Your task to perform on an android device: turn off notifications settings in the gmail app Image 0: 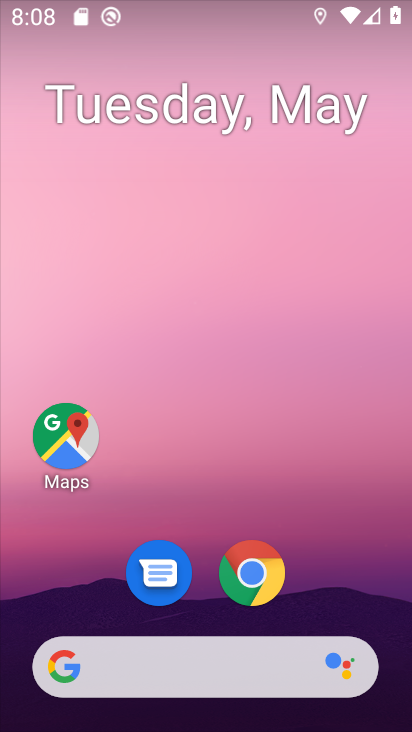
Step 0: drag from (369, 490) to (350, 243)
Your task to perform on an android device: turn off notifications settings in the gmail app Image 1: 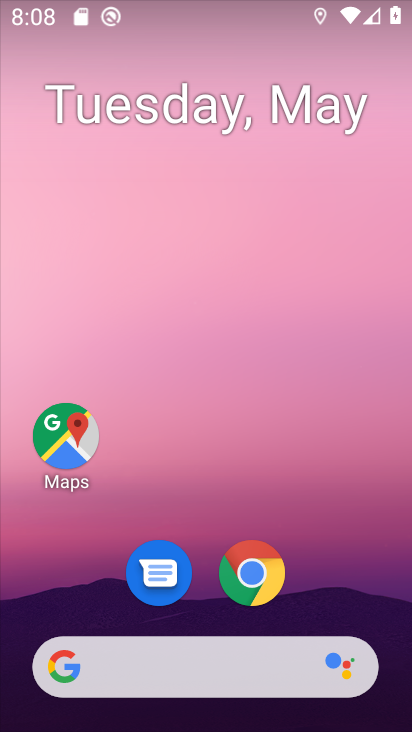
Step 1: drag from (373, 492) to (373, 239)
Your task to perform on an android device: turn off notifications settings in the gmail app Image 2: 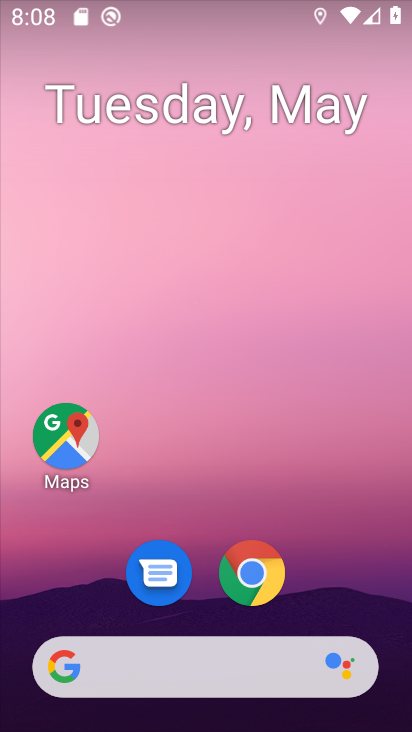
Step 2: drag from (398, 705) to (400, 160)
Your task to perform on an android device: turn off notifications settings in the gmail app Image 3: 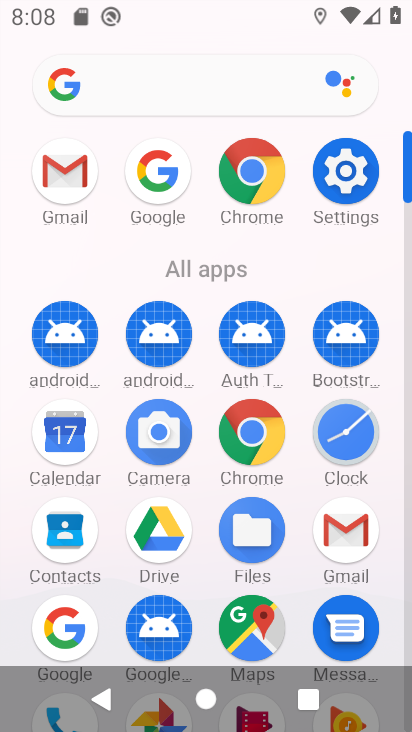
Step 3: click (60, 175)
Your task to perform on an android device: turn off notifications settings in the gmail app Image 4: 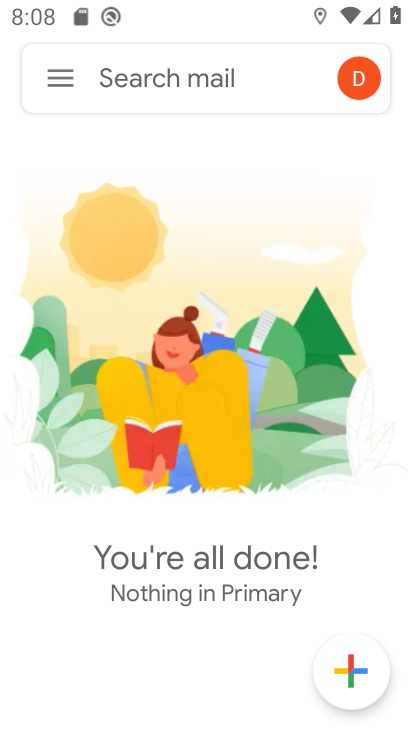
Step 4: click (56, 81)
Your task to perform on an android device: turn off notifications settings in the gmail app Image 5: 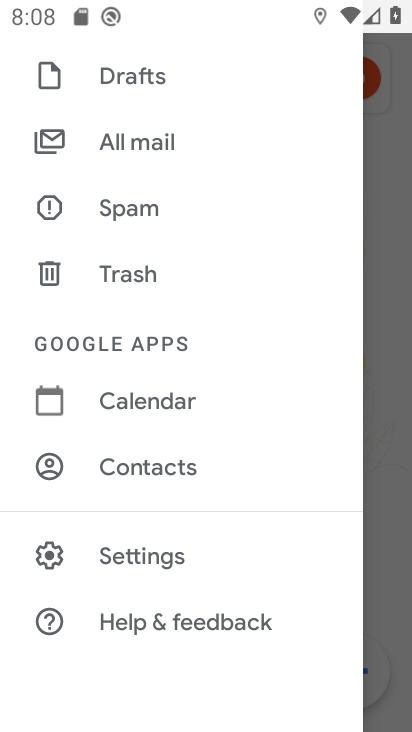
Step 5: click (143, 549)
Your task to perform on an android device: turn off notifications settings in the gmail app Image 6: 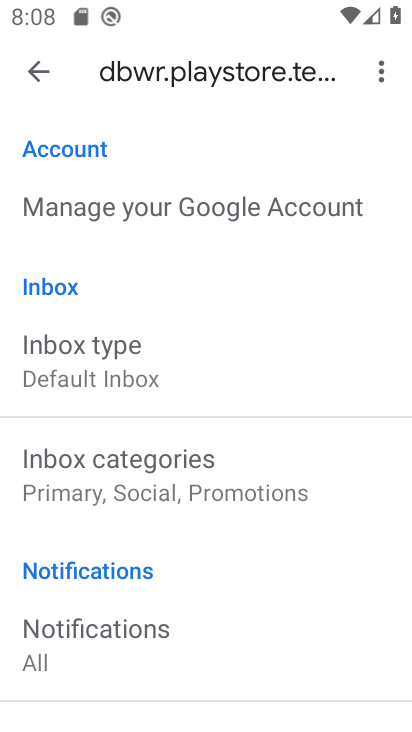
Step 6: click (102, 207)
Your task to perform on an android device: turn off notifications settings in the gmail app Image 7: 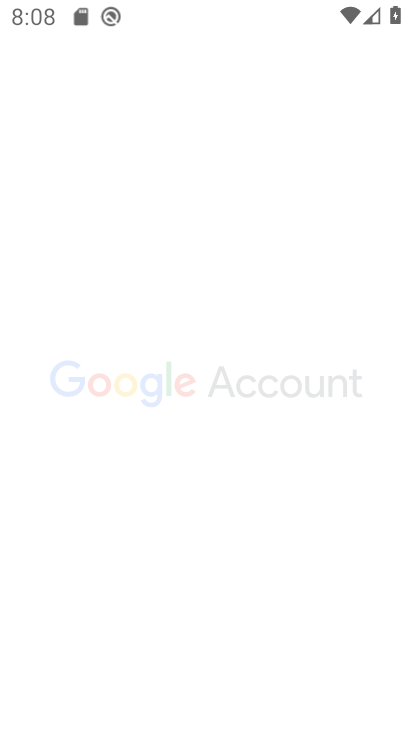
Step 7: click (32, 69)
Your task to perform on an android device: turn off notifications settings in the gmail app Image 8: 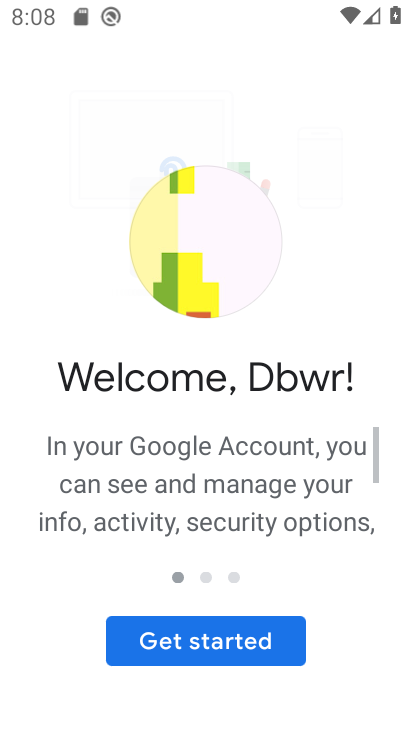
Step 8: press back button
Your task to perform on an android device: turn off notifications settings in the gmail app Image 9: 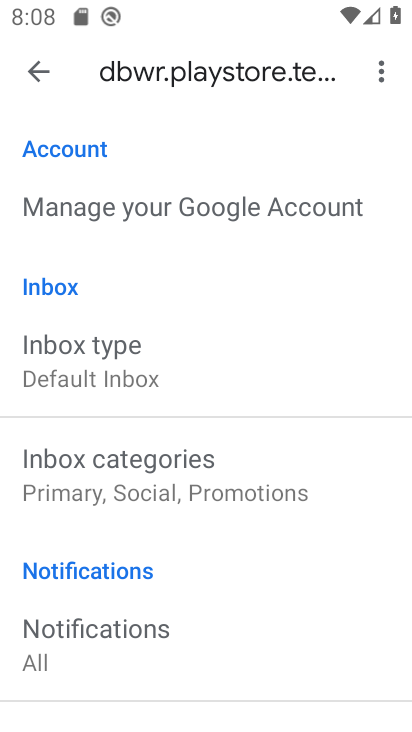
Step 9: click (35, 63)
Your task to perform on an android device: turn off notifications settings in the gmail app Image 10: 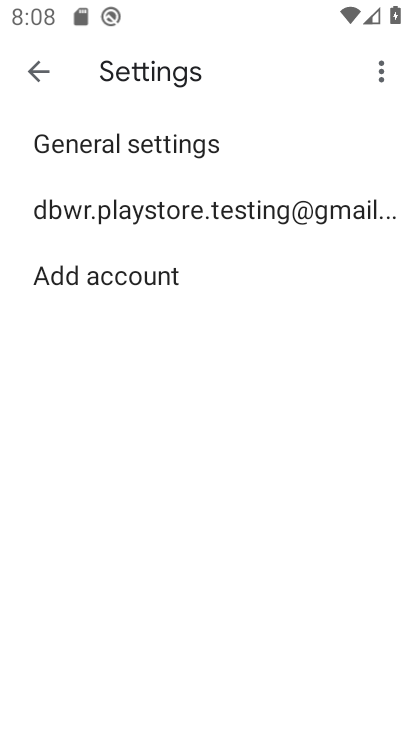
Step 10: click (69, 137)
Your task to perform on an android device: turn off notifications settings in the gmail app Image 11: 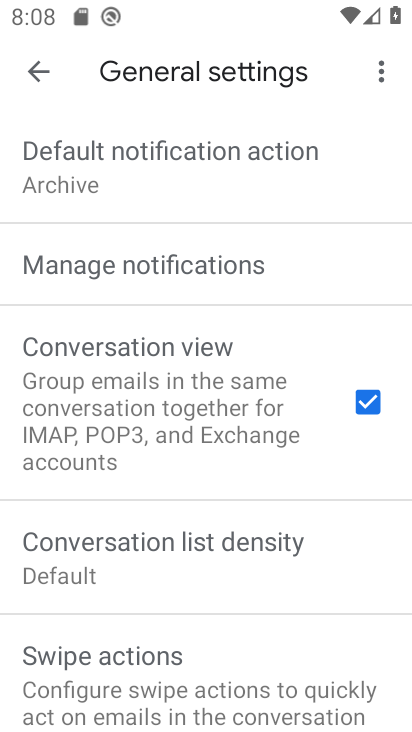
Step 11: click (85, 266)
Your task to perform on an android device: turn off notifications settings in the gmail app Image 12: 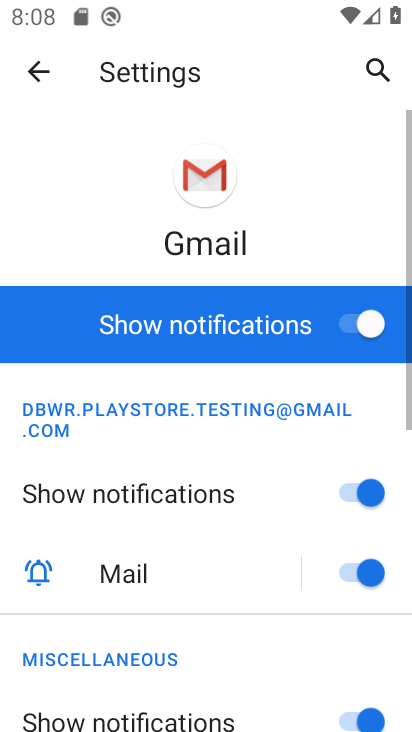
Step 12: click (350, 330)
Your task to perform on an android device: turn off notifications settings in the gmail app Image 13: 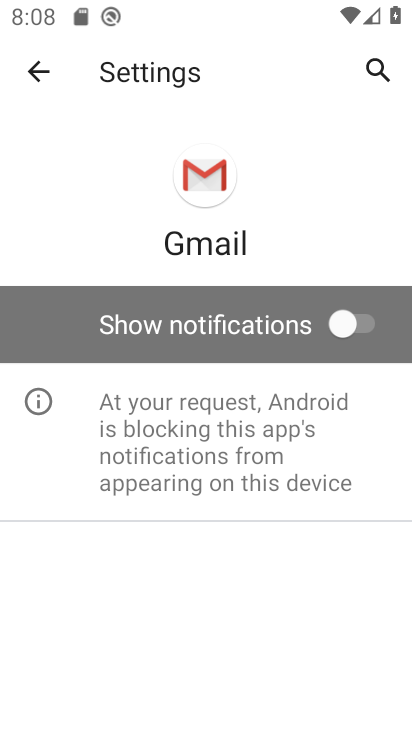
Step 13: task complete